Your task to perform on an android device: Show me the alarms in the clock app Image 0: 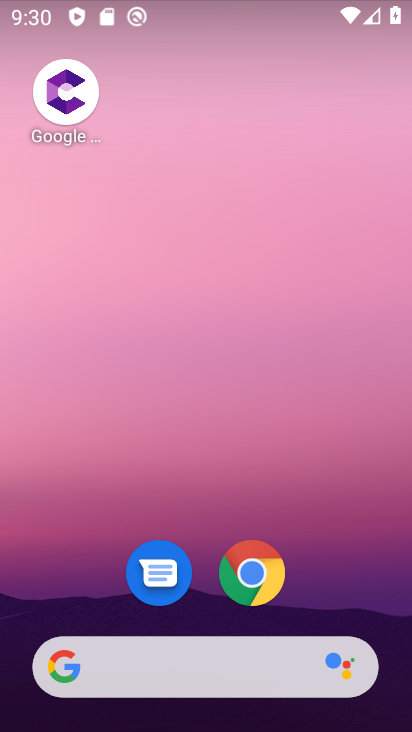
Step 0: drag from (326, 613) to (344, 73)
Your task to perform on an android device: Show me the alarms in the clock app Image 1: 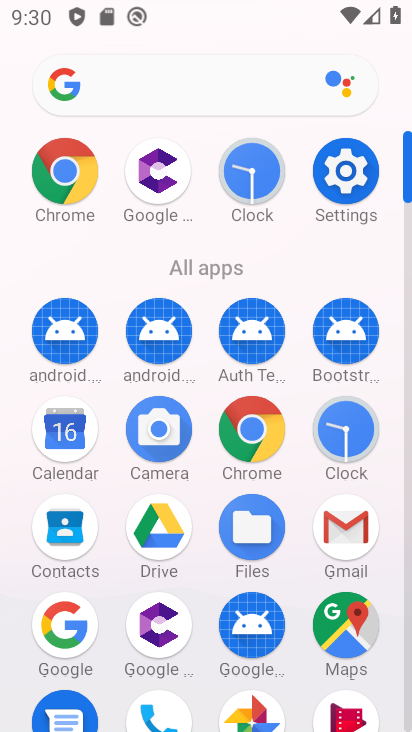
Step 1: click (244, 157)
Your task to perform on an android device: Show me the alarms in the clock app Image 2: 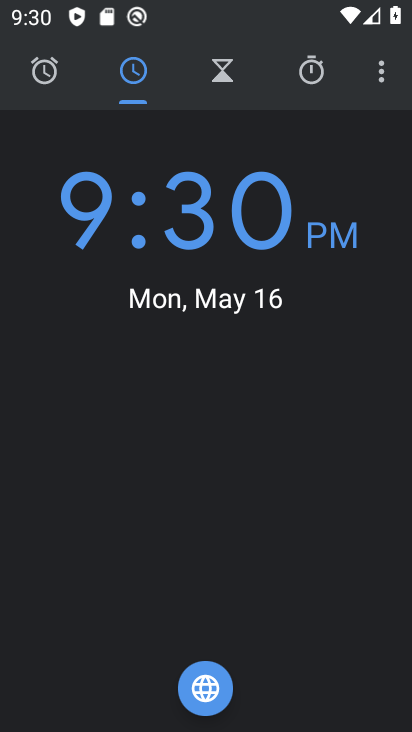
Step 2: click (41, 79)
Your task to perform on an android device: Show me the alarms in the clock app Image 3: 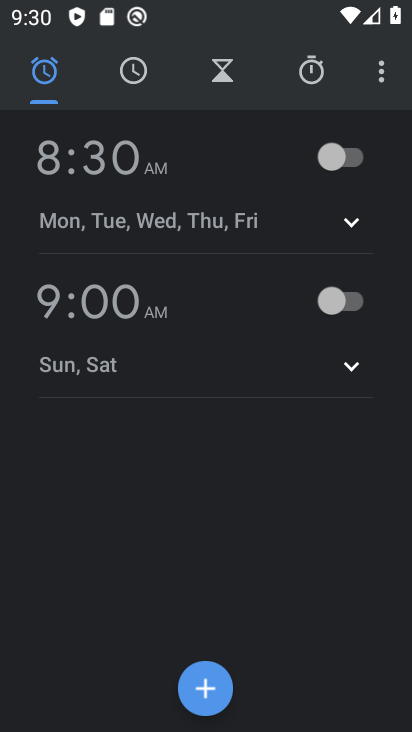
Step 3: click (118, 177)
Your task to perform on an android device: Show me the alarms in the clock app Image 4: 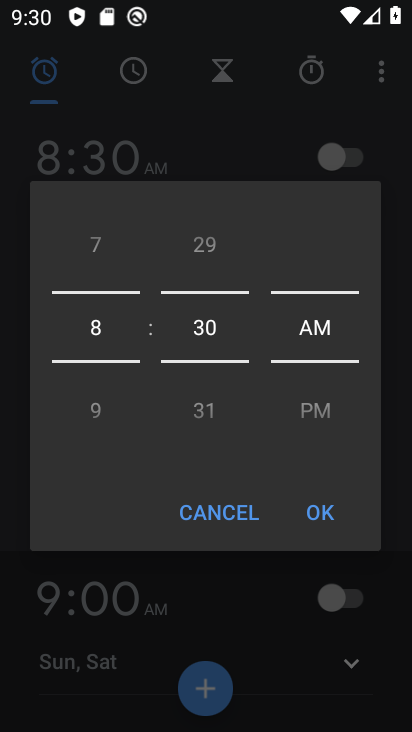
Step 4: drag from (104, 246) to (92, 377)
Your task to perform on an android device: Show me the alarms in the clock app Image 5: 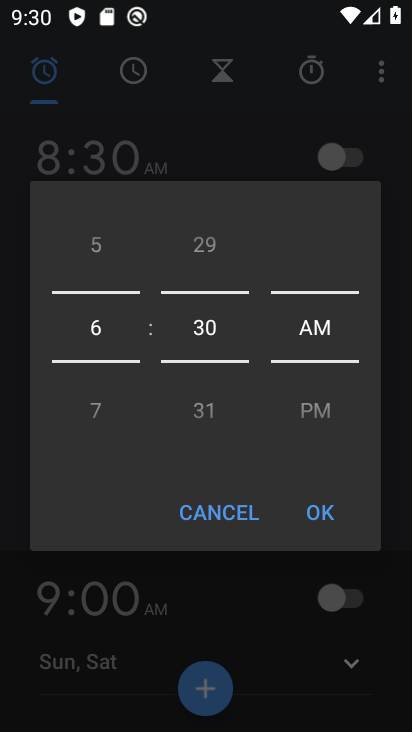
Step 5: click (332, 518)
Your task to perform on an android device: Show me the alarms in the clock app Image 6: 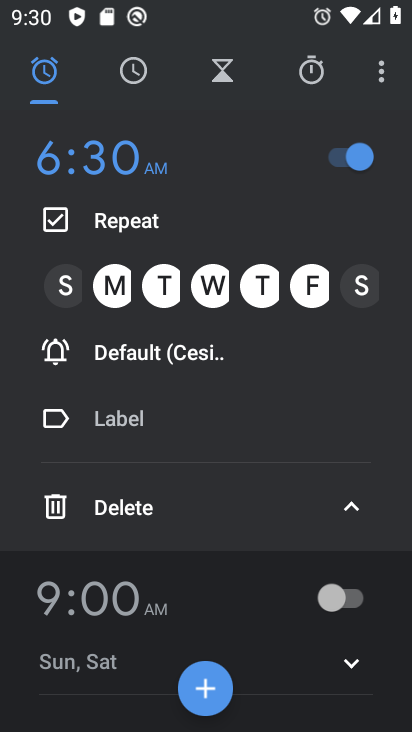
Step 6: task complete